Your task to perform on an android device: turn on airplane mode Image 0: 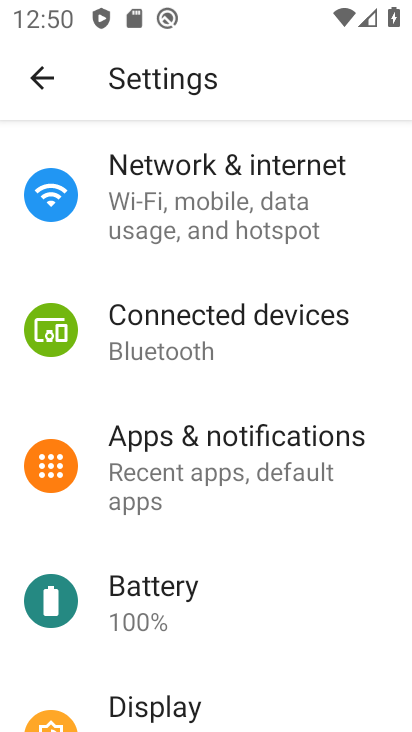
Step 0: click (183, 199)
Your task to perform on an android device: turn on airplane mode Image 1: 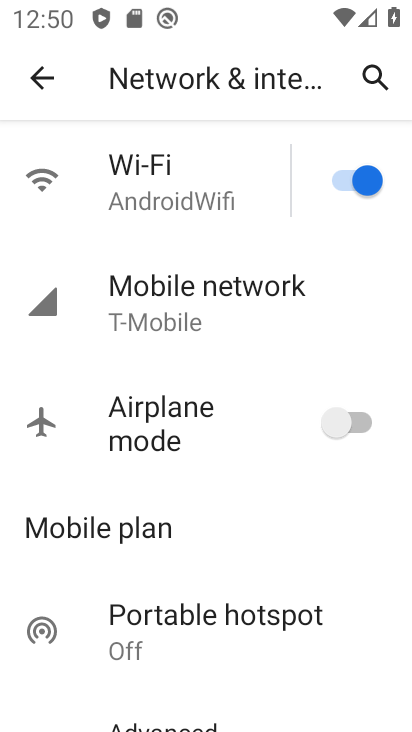
Step 1: click (348, 421)
Your task to perform on an android device: turn on airplane mode Image 2: 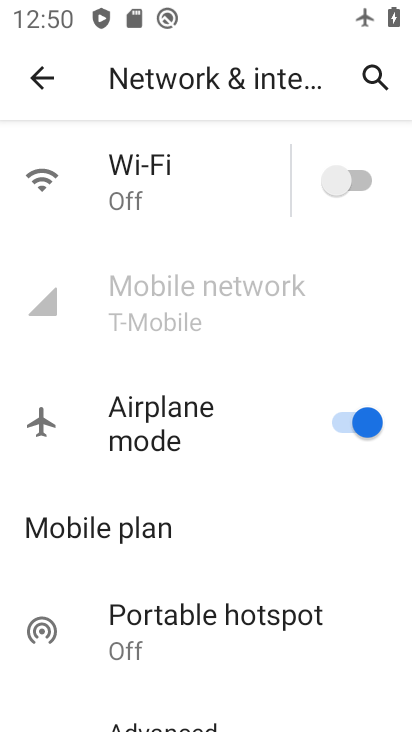
Step 2: task complete